Your task to perform on an android device: turn off javascript in the chrome app Image 0: 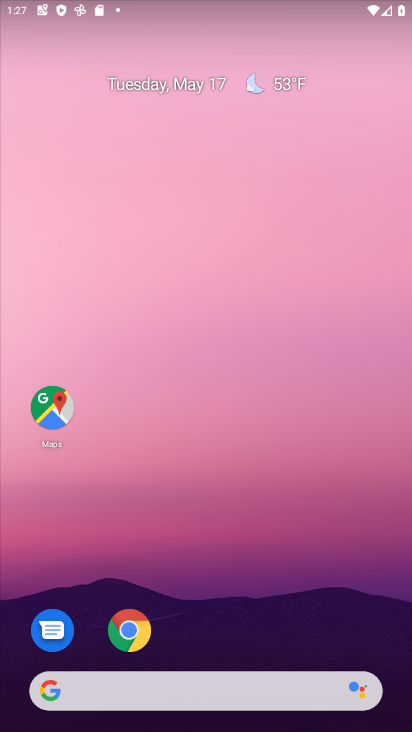
Step 0: drag from (244, 616) to (263, 71)
Your task to perform on an android device: turn off javascript in the chrome app Image 1: 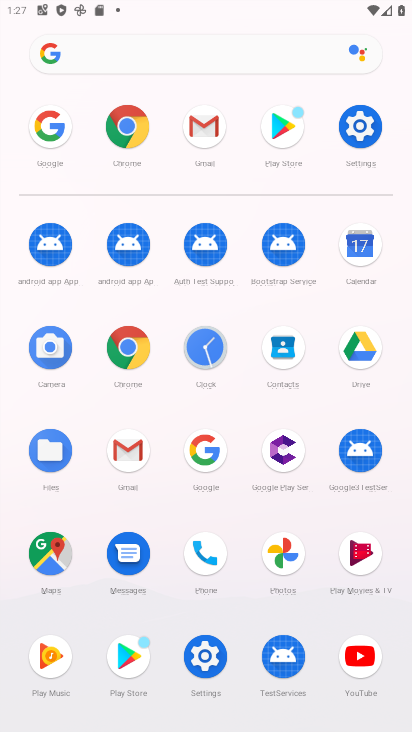
Step 1: click (125, 136)
Your task to perform on an android device: turn off javascript in the chrome app Image 2: 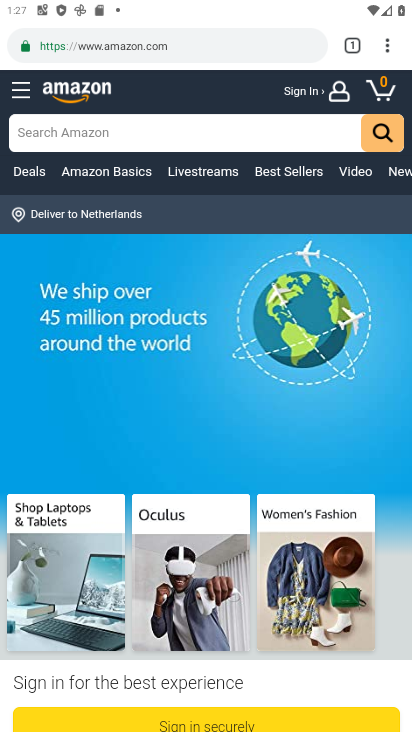
Step 2: click (392, 52)
Your task to perform on an android device: turn off javascript in the chrome app Image 3: 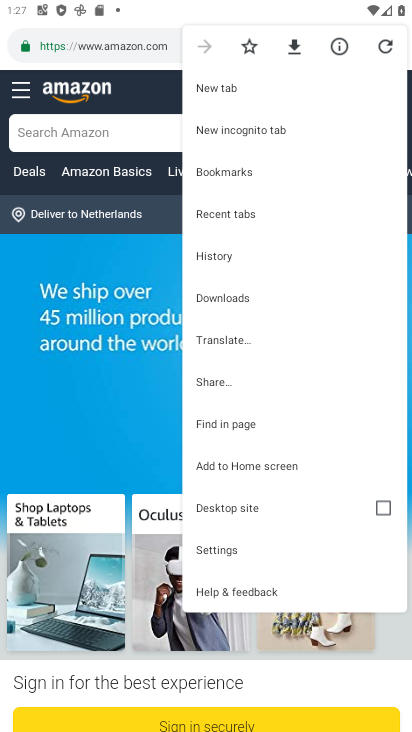
Step 3: click (238, 555)
Your task to perform on an android device: turn off javascript in the chrome app Image 4: 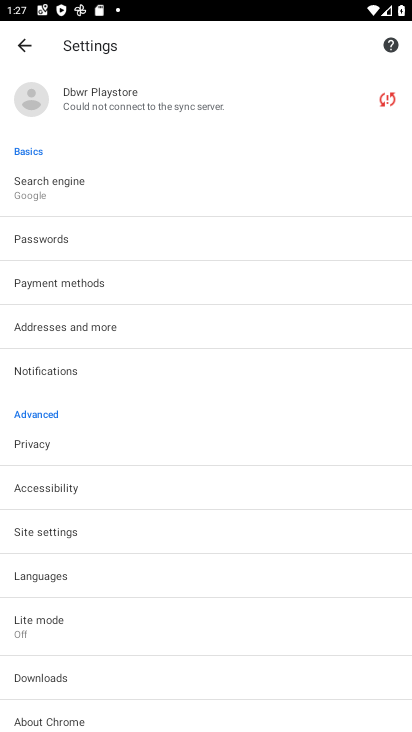
Step 4: click (103, 539)
Your task to perform on an android device: turn off javascript in the chrome app Image 5: 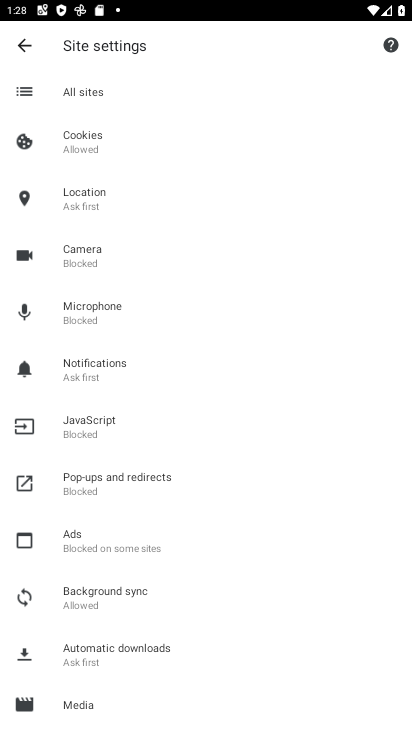
Step 5: drag from (111, 587) to (129, 460)
Your task to perform on an android device: turn off javascript in the chrome app Image 6: 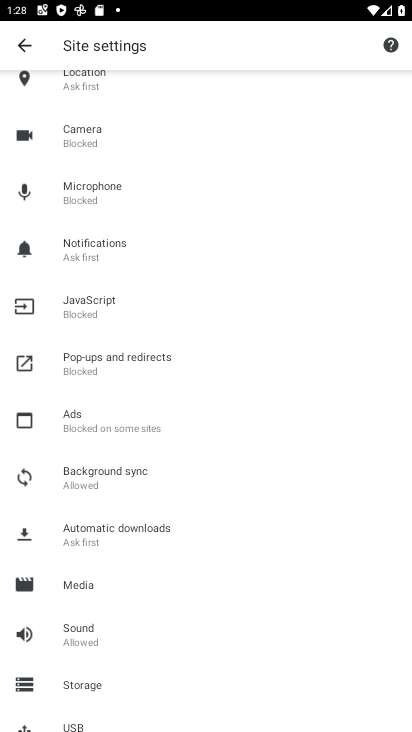
Step 6: click (102, 307)
Your task to perform on an android device: turn off javascript in the chrome app Image 7: 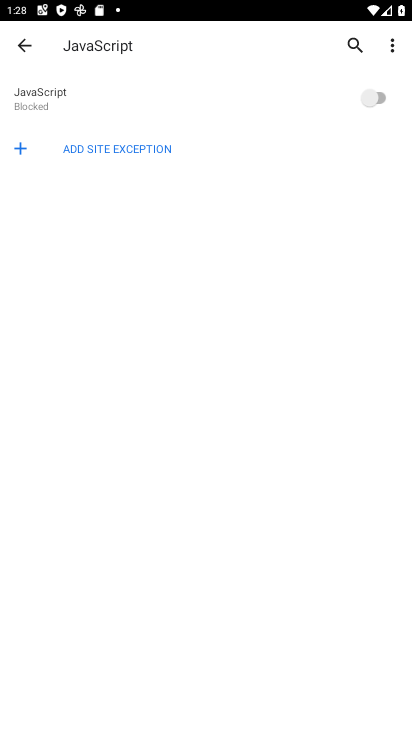
Step 7: task complete